Your task to perform on an android device: Open Yahoo.com Image 0: 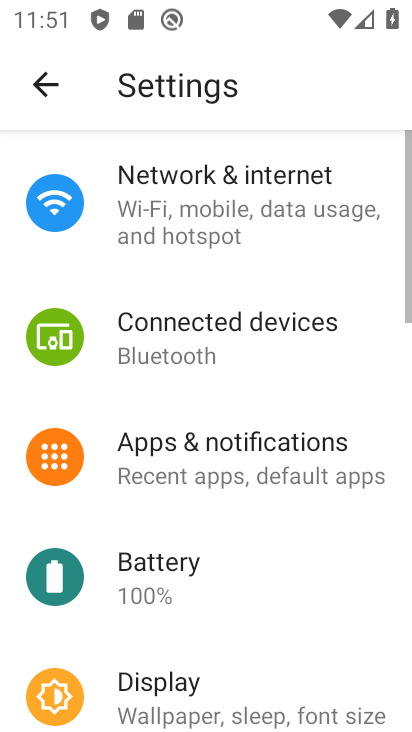
Step 0: press home button
Your task to perform on an android device: Open Yahoo.com Image 1: 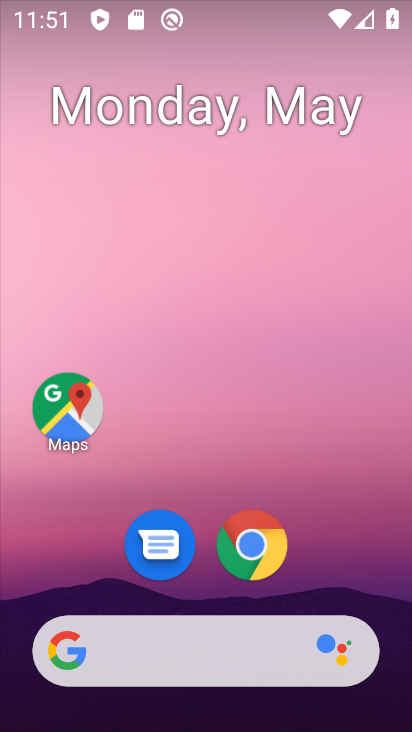
Step 1: click (249, 550)
Your task to perform on an android device: Open Yahoo.com Image 2: 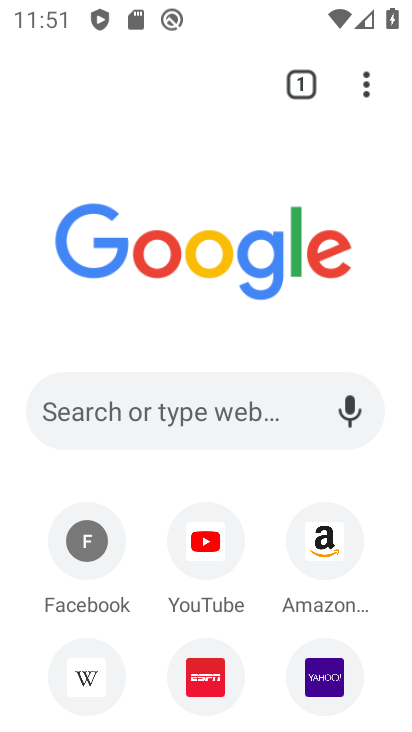
Step 2: click (319, 670)
Your task to perform on an android device: Open Yahoo.com Image 3: 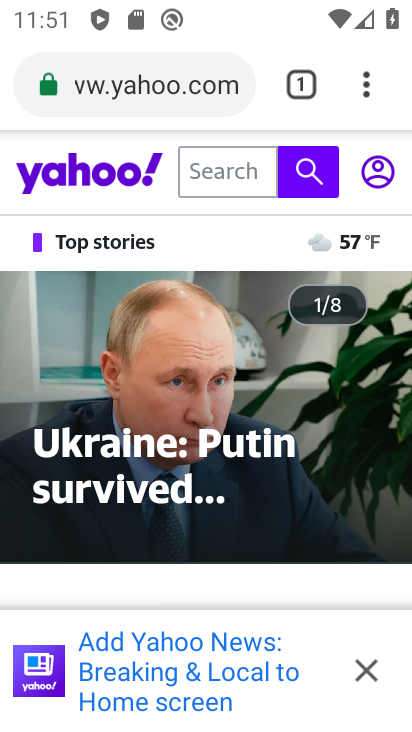
Step 3: task complete